Your task to perform on an android device: Open ESPN.com Image 0: 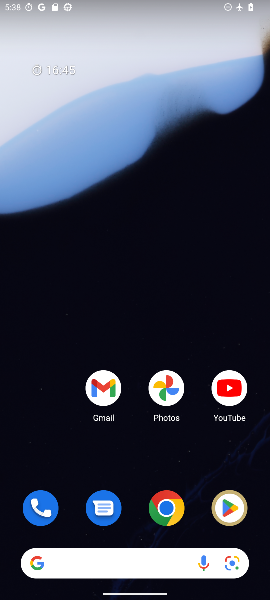
Step 0: drag from (125, 501) to (127, 112)
Your task to perform on an android device: Open ESPN.com Image 1: 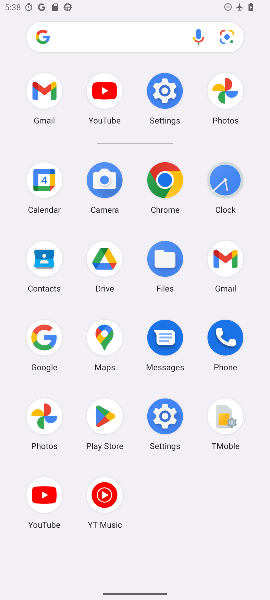
Step 1: click (158, 188)
Your task to perform on an android device: Open ESPN.com Image 2: 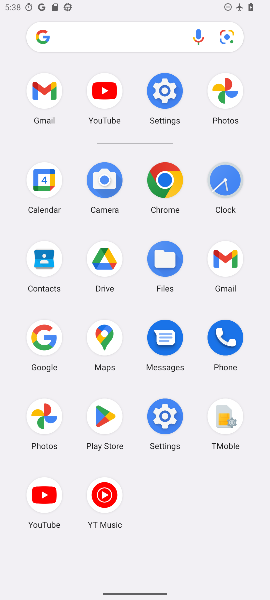
Step 2: click (158, 188)
Your task to perform on an android device: Open ESPN.com Image 3: 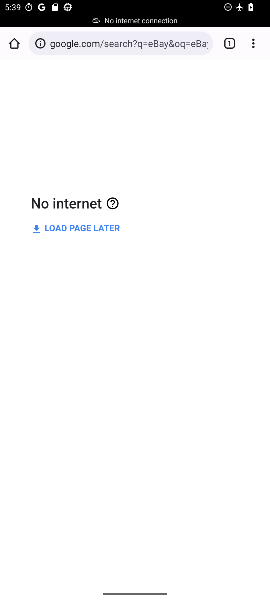
Step 3: click (93, 43)
Your task to perform on an android device: Open ESPN.com Image 4: 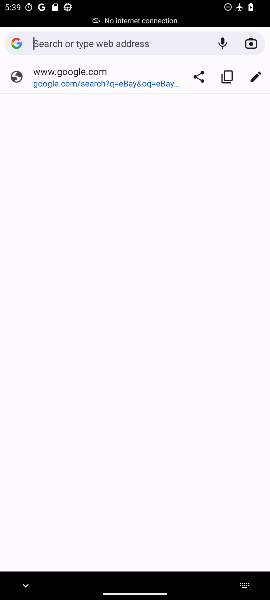
Step 4: type "ESPN.com"
Your task to perform on an android device: Open ESPN.com Image 5: 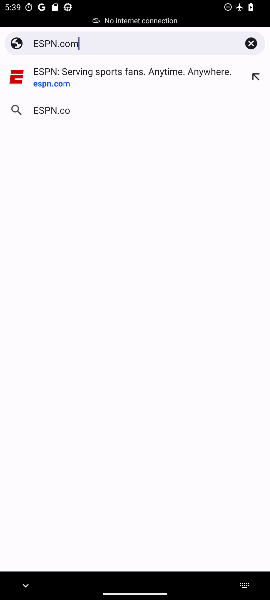
Step 5: type ""
Your task to perform on an android device: Open ESPN.com Image 6: 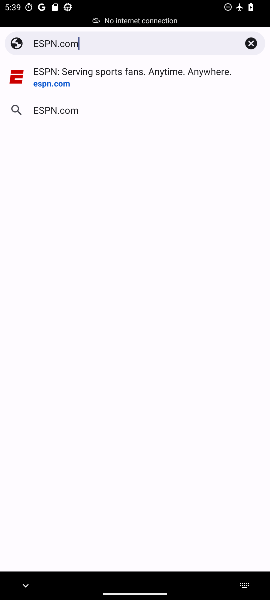
Step 6: click (51, 81)
Your task to perform on an android device: Open ESPN.com Image 7: 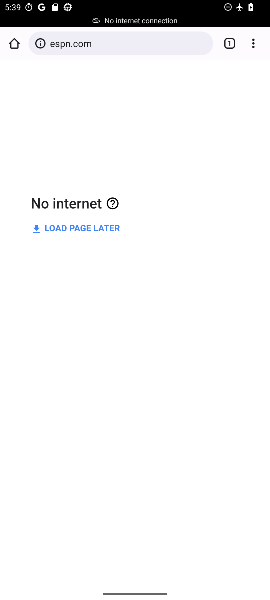
Step 7: drag from (183, 500) to (111, 246)
Your task to perform on an android device: Open ESPN.com Image 8: 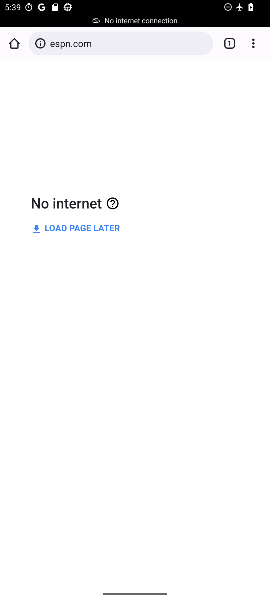
Step 8: drag from (117, 142) to (248, 597)
Your task to perform on an android device: Open ESPN.com Image 9: 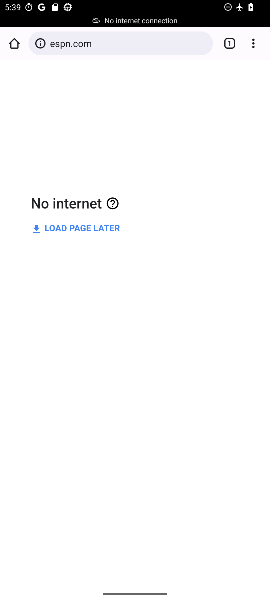
Step 9: drag from (164, 313) to (194, 528)
Your task to perform on an android device: Open ESPN.com Image 10: 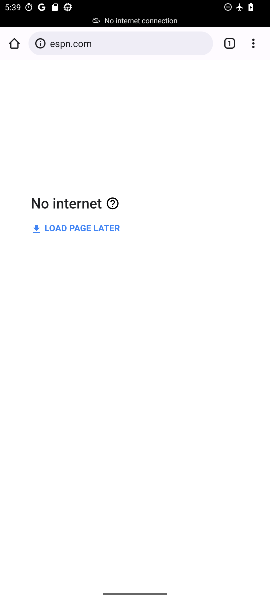
Step 10: click (168, 424)
Your task to perform on an android device: Open ESPN.com Image 11: 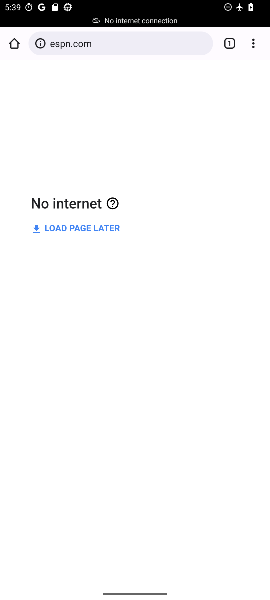
Step 11: task complete